Your task to perform on an android device: change the clock display to show seconds Image 0: 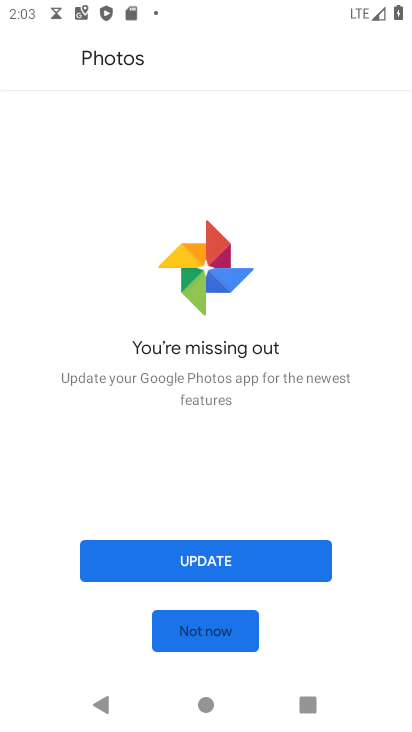
Step 0: press home button
Your task to perform on an android device: change the clock display to show seconds Image 1: 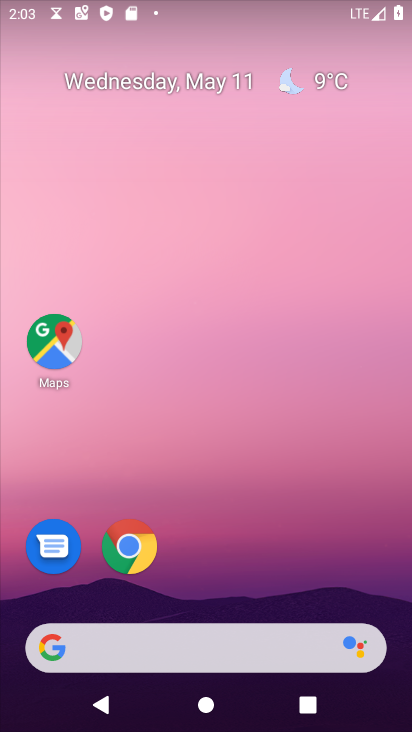
Step 1: drag from (253, 593) to (238, 86)
Your task to perform on an android device: change the clock display to show seconds Image 2: 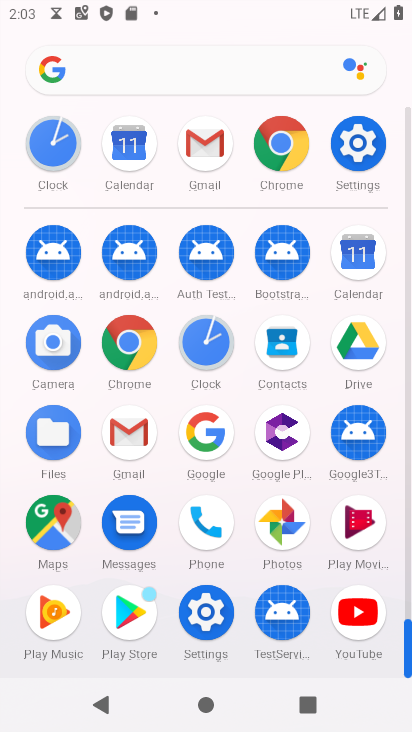
Step 2: click (209, 357)
Your task to perform on an android device: change the clock display to show seconds Image 3: 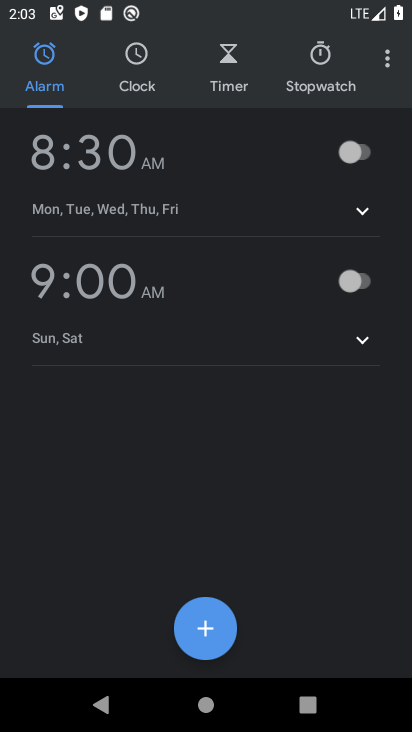
Step 3: click (387, 64)
Your task to perform on an android device: change the clock display to show seconds Image 4: 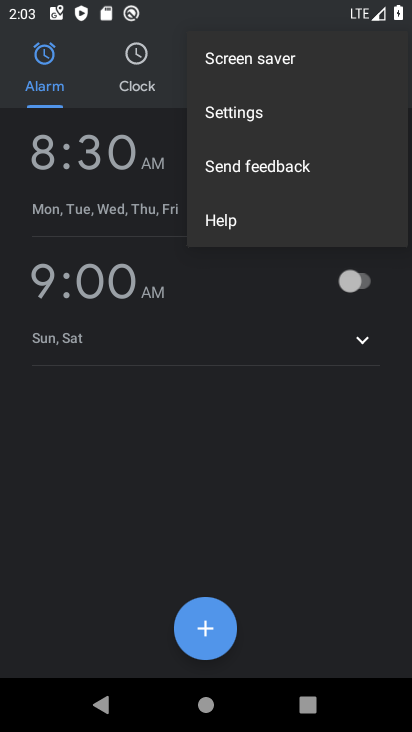
Step 4: click (252, 127)
Your task to perform on an android device: change the clock display to show seconds Image 5: 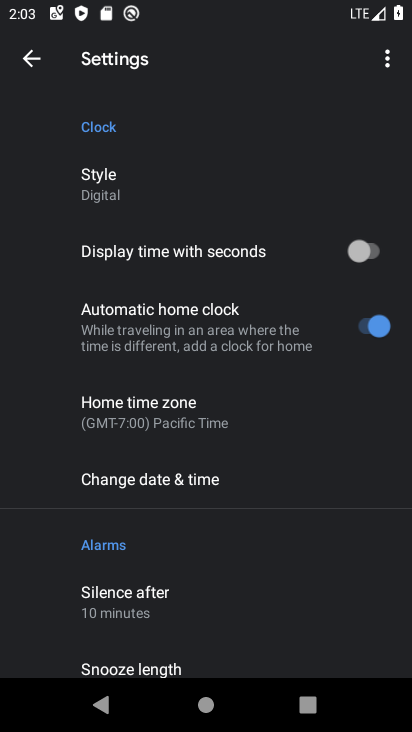
Step 5: click (377, 255)
Your task to perform on an android device: change the clock display to show seconds Image 6: 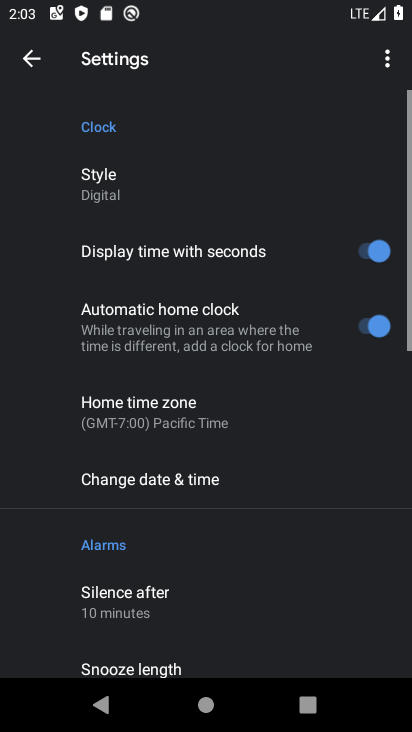
Step 6: task complete